Your task to perform on an android device: delete browsing data in the chrome app Image 0: 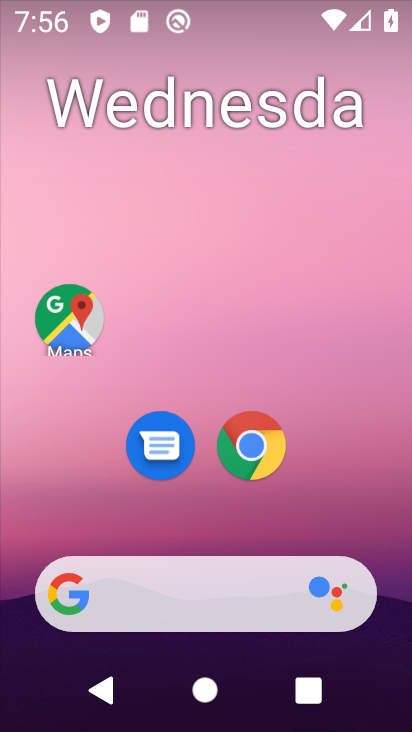
Step 0: drag from (249, 542) to (279, 10)
Your task to perform on an android device: delete browsing data in the chrome app Image 1: 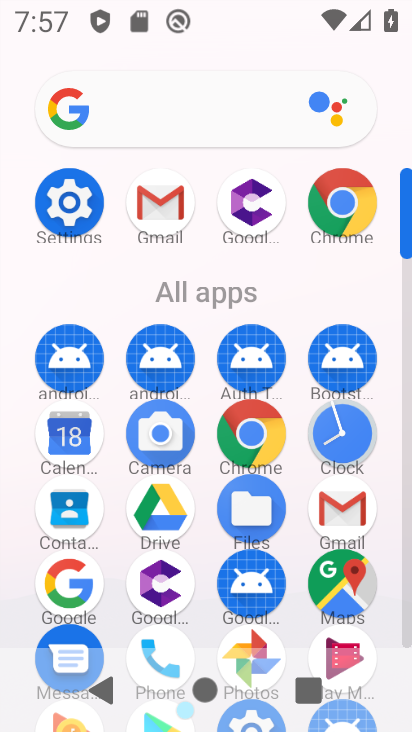
Step 1: click (252, 431)
Your task to perform on an android device: delete browsing data in the chrome app Image 2: 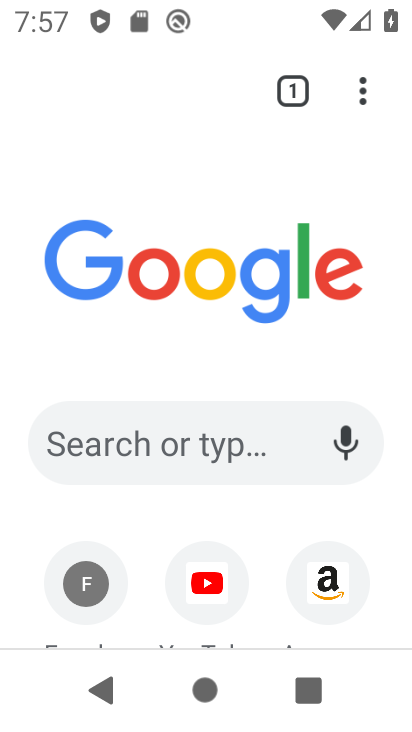
Step 2: click (363, 95)
Your task to perform on an android device: delete browsing data in the chrome app Image 3: 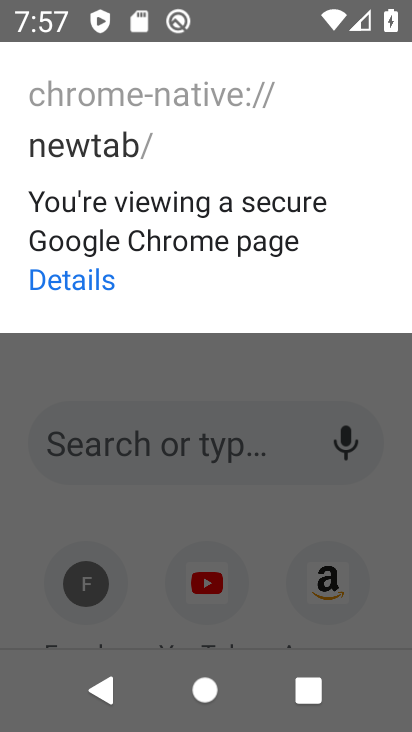
Step 3: click (325, 358)
Your task to perform on an android device: delete browsing data in the chrome app Image 4: 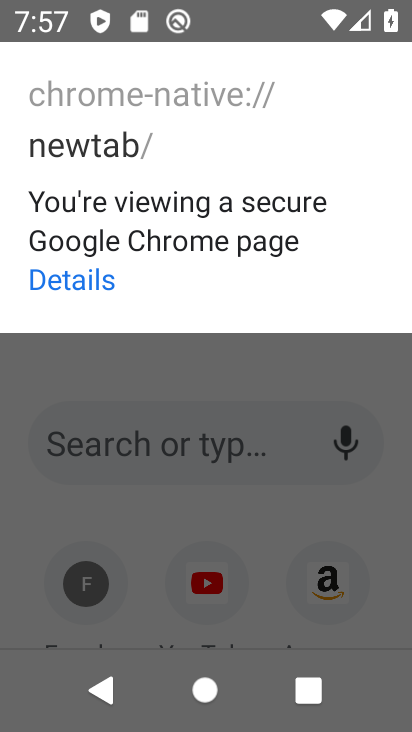
Step 4: click (116, 398)
Your task to perform on an android device: delete browsing data in the chrome app Image 5: 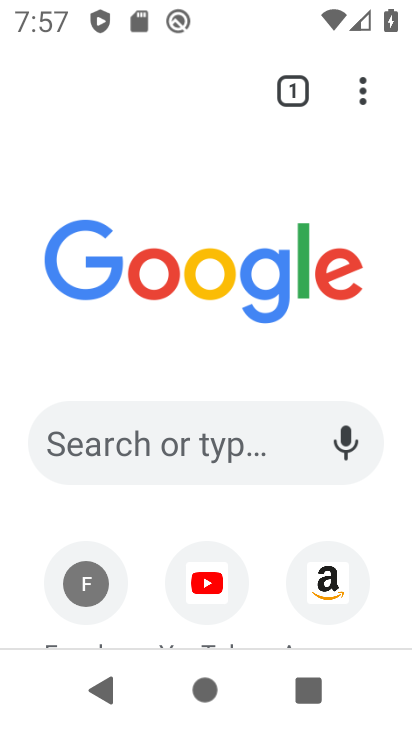
Step 5: drag from (356, 95) to (64, 319)
Your task to perform on an android device: delete browsing data in the chrome app Image 6: 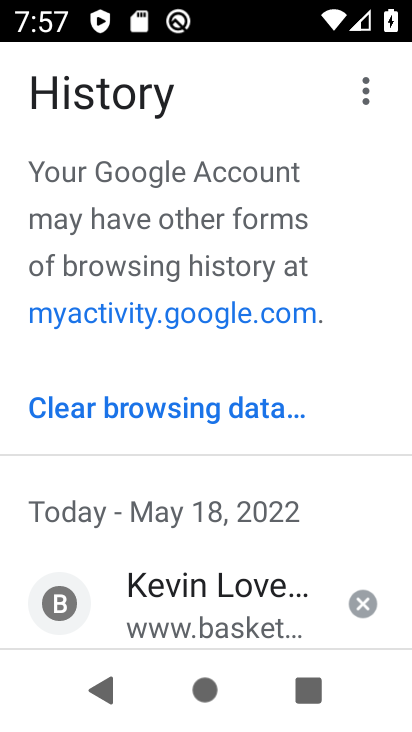
Step 6: click (165, 413)
Your task to perform on an android device: delete browsing data in the chrome app Image 7: 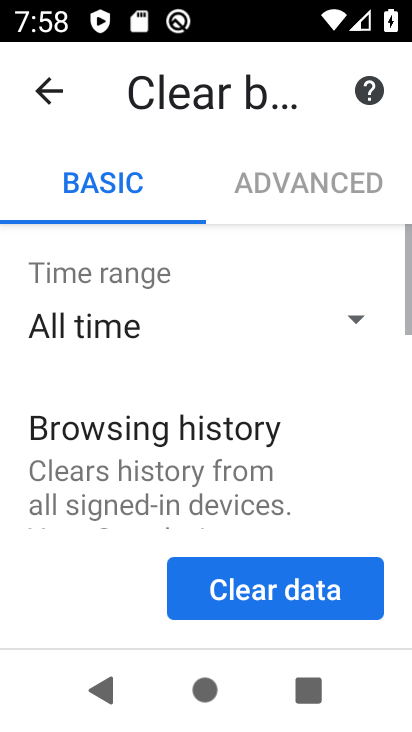
Step 7: drag from (262, 477) to (251, 280)
Your task to perform on an android device: delete browsing data in the chrome app Image 8: 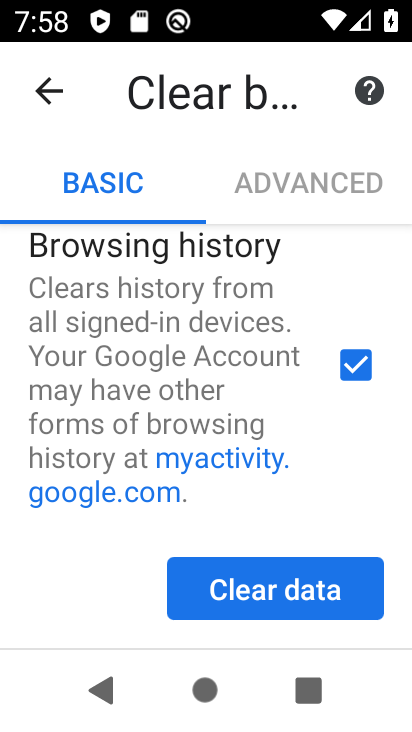
Step 8: click (261, 597)
Your task to perform on an android device: delete browsing data in the chrome app Image 9: 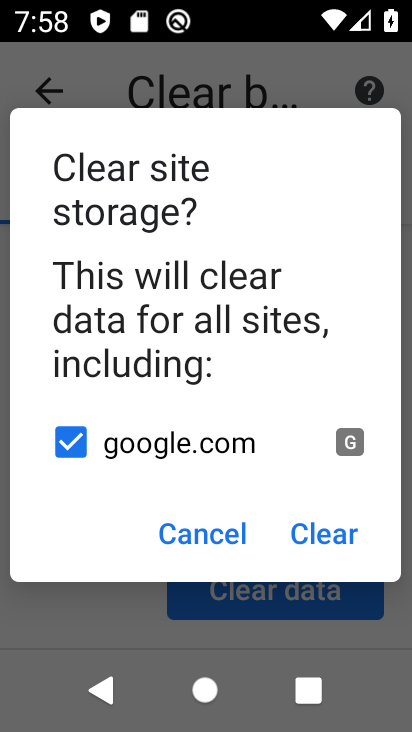
Step 9: click (308, 534)
Your task to perform on an android device: delete browsing data in the chrome app Image 10: 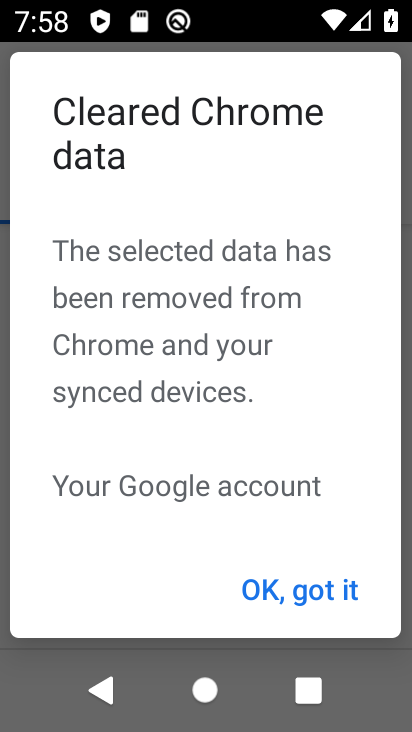
Step 10: task complete